Your task to perform on an android device: set default search engine in the chrome app Image 0: 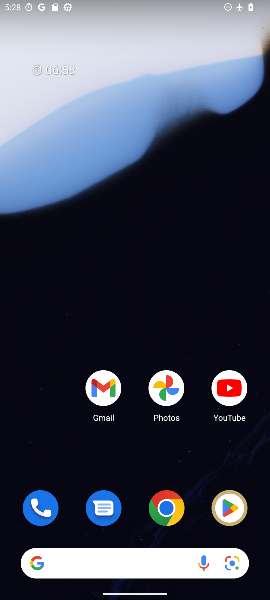
Step 0: drag from (135, 504) to (168, 131)
Your task to perform on an android device: set default search engine in the chrome app Image 1: 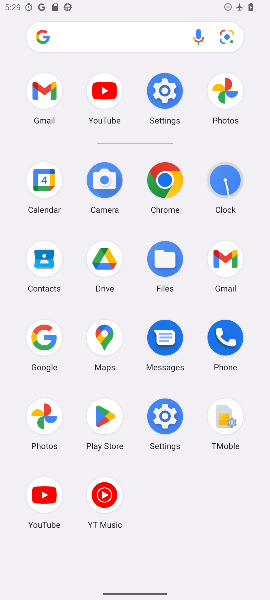
Step 1: click (166, 175)
Your task to perform on an android device: set default search engine in the chrome app Image 2: 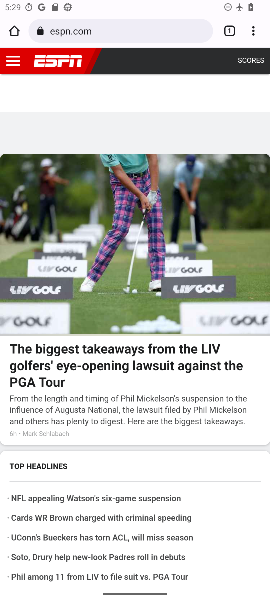
Step 2: drag from (251, 22) to (190, 356)
Your task to perform on an android device: set default search engine in the chrome app Image 3: 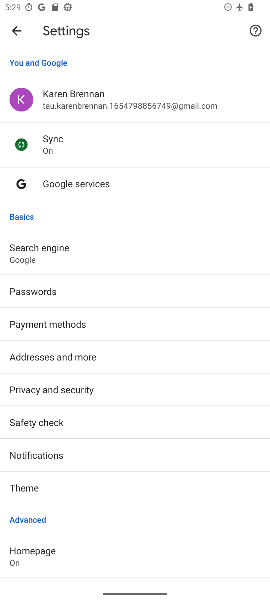
Step 3: drag from (138, 494) to (195, 195)
Your task to perform on an android device: set default search engine in the chrome app Image 4: 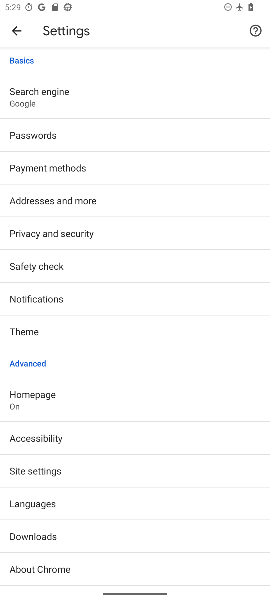
Step 4: click (96, 102)
Your task to perform on an android device: set default search engine in the chrome app Image 5: 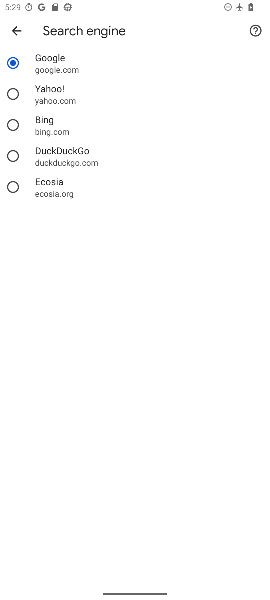
Step 5: task complete